Your task to perform on an android device: Show the shopping cart on ebay. Image 0: 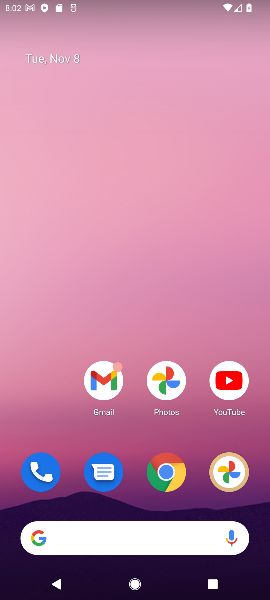
Step 0: press home button
Your task to perform on an android device: Show the shopping cart on ebay. Image 1: 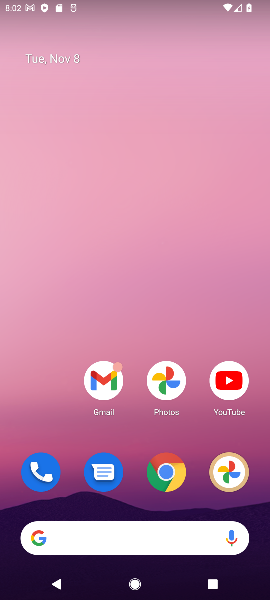
Step 1: click (159, 475)
Your task to perform on an android device: Show the shopping cart on ebay. Image 2: 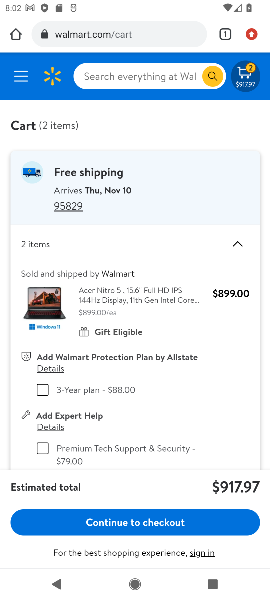
Step 2: click (137, 77)
Your task to perform on an android device: Show the shopping cart on ebay. Image 3: 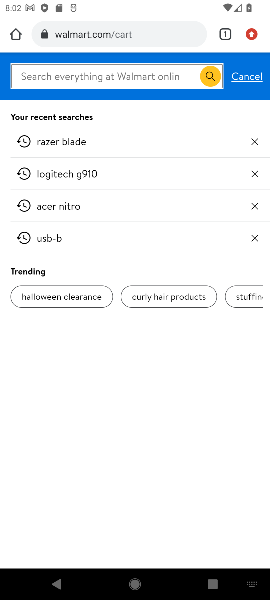
Step 3: click (126, 27)
Your task to perform on an android device: Show the shopping cart on ebay. Image 4: 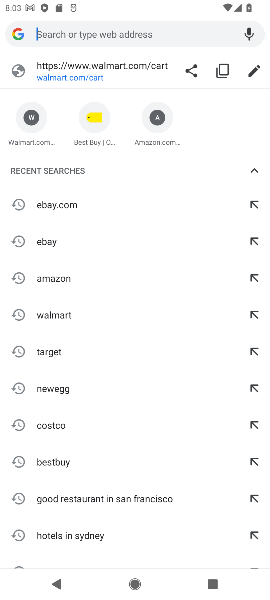
Step 4: type " ebay"
Your task to perform on an android device: Show the shopping cart on ebay. Image 5: 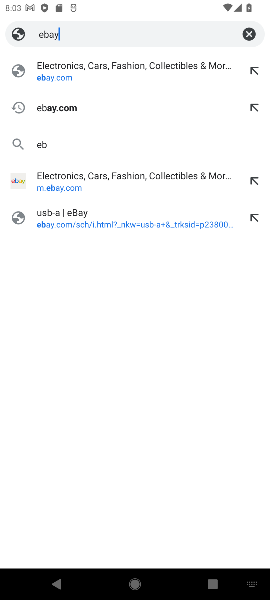
Step 5: press enter
Your task to perform on an android device: Show the shopping cart on ebay. Image 6: 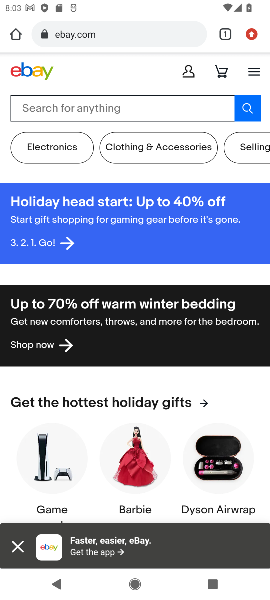
Step 6: drag from (156, 169) to (142, 410)
Your task to perform on an android device: Show the shopping cart on ebay. Image 7: 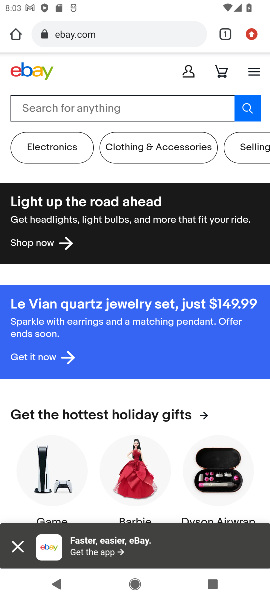
Step 7: click (221, 72)
Your task to perform on an android device: Show the shopping cart on ebay. Image 8: 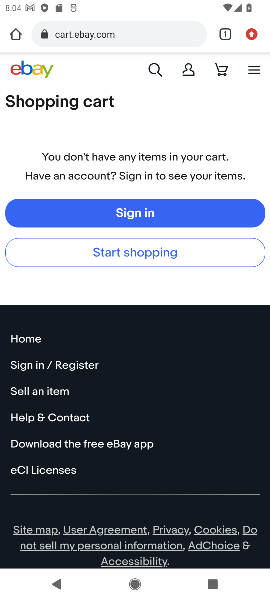
Step 8: task complete